Your task to perform on an android device: Open Maps and search for coffee Image 0: 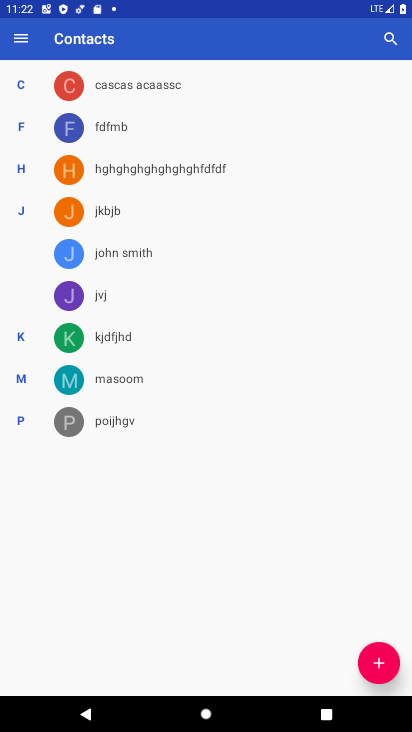
Step 0: click (196, 625)
Your task to perform on an android device: Open Maps and search for coffee Image 1: 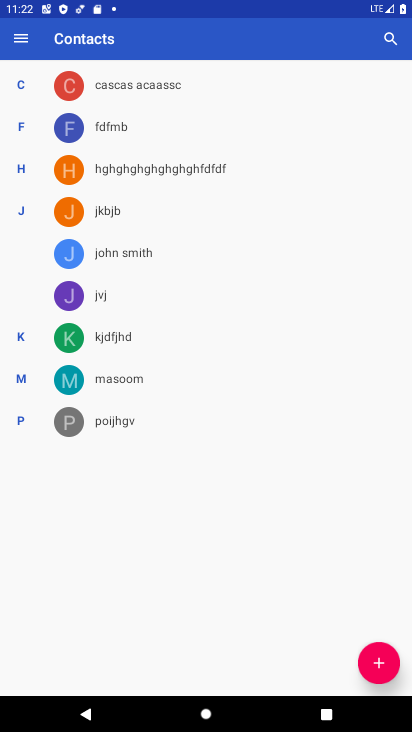
Step 1: press home button
Your task to perform on an android device: Open Maps and search for coffee Image 2: 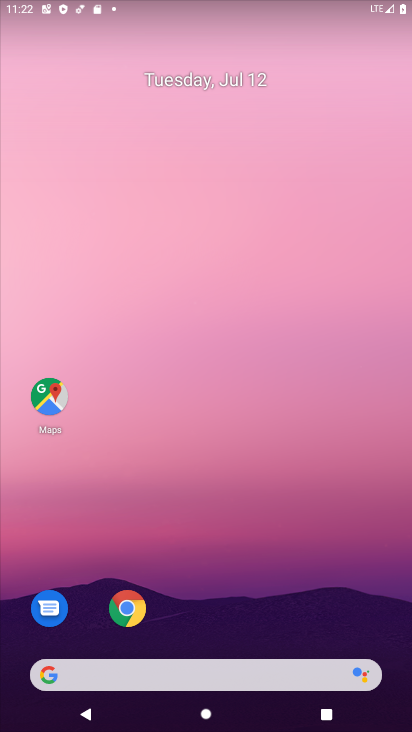
Step 2: click (57, 399)
Your task to perform on an android device: Open Maps and search for coffee Image 3: 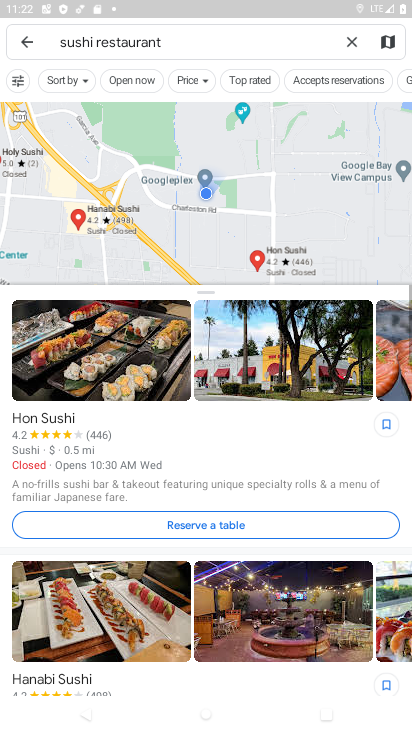
Step 3: click (350, 38)
Your task to perform on an android device: Open Maps and search for coffee Image 4: 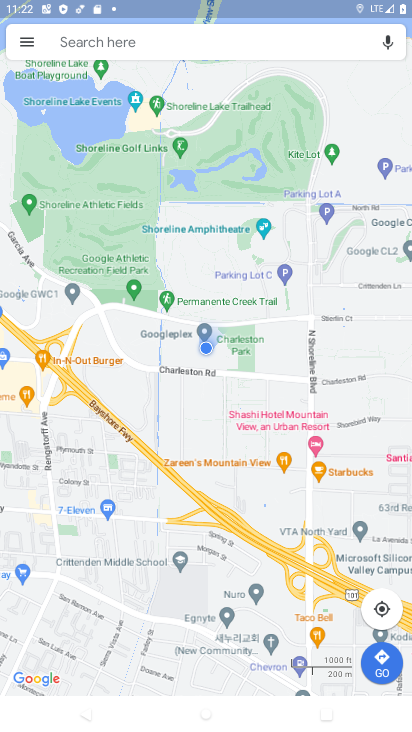
Step 4: click (197, 47)
Your task to perform on an android device: Open Maps and search for coffee Image 5: 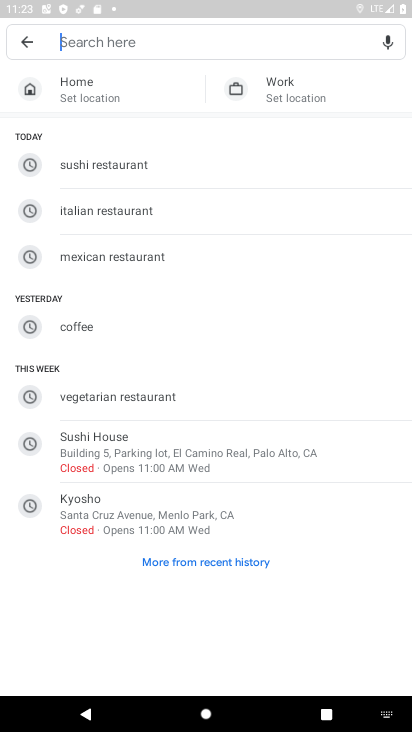
Step 5: click (108, 331)
Your task to perform on an android device: Open Maps and search for coffee Image 6: 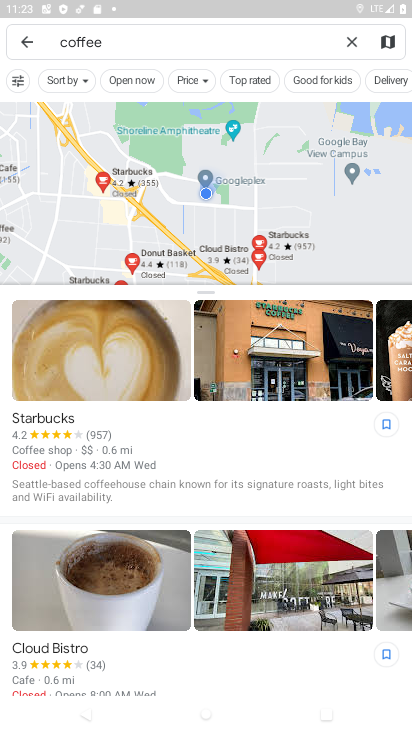
Step 6: task complete